Your task to perform on an android device: turn off wifi Image 0: 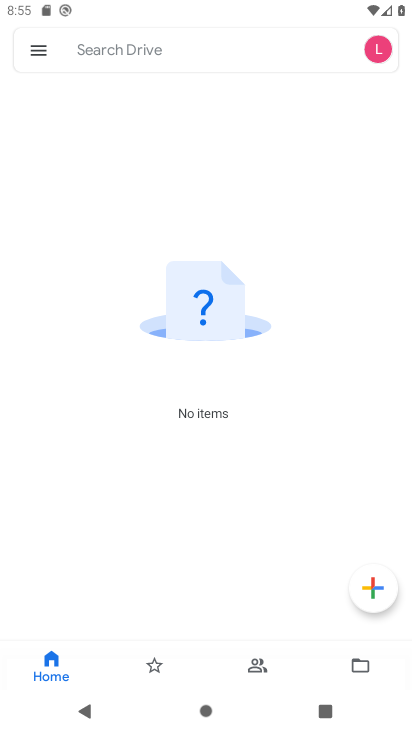
Step 0: press home button
Your task to perform on an android device: turn off wifi Image 1: 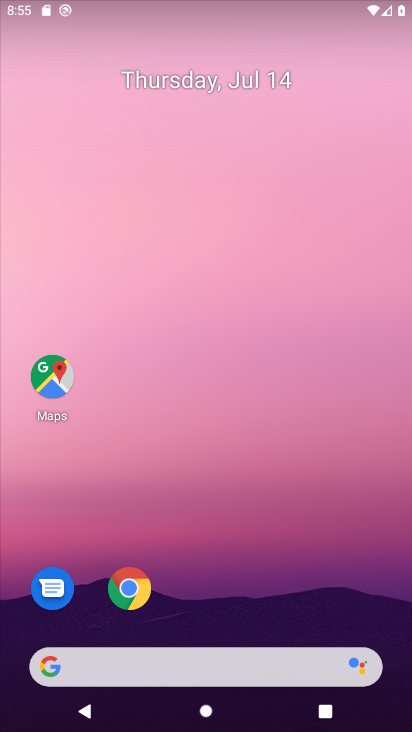
Step 1: drag from (231, 616) to (216, 74)
Your task to perform on an android device: turn off wifi Image 2: 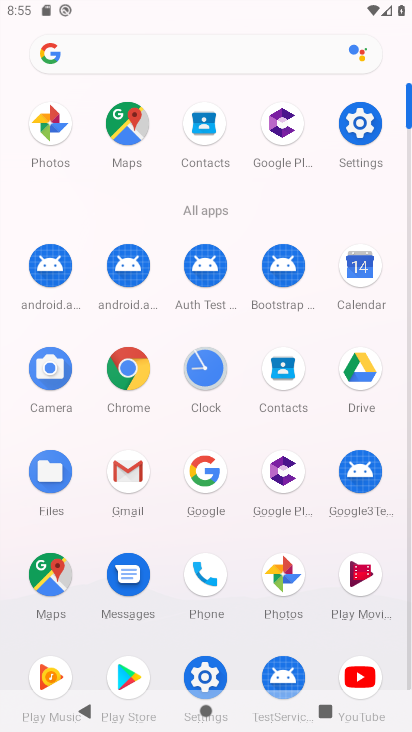
Step 2: drag from (160, 4) to (192, 552)
Your task to perform on an android device: turn off wifi Image 3: 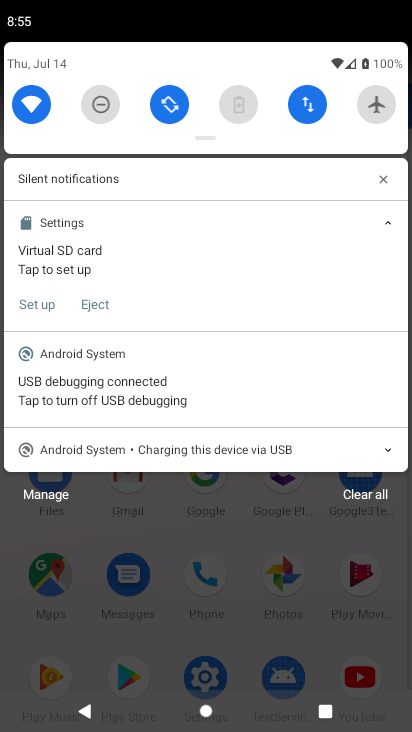
Step 3: click (24, 108)
Your task to perform on an android device: turn off wifi Image 4: 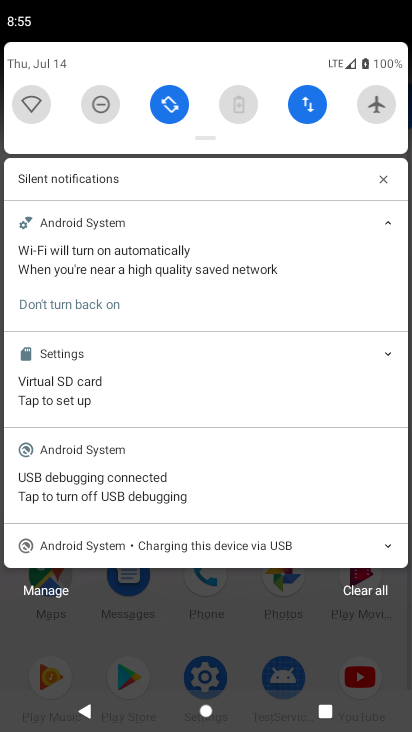
Step 4: task complete